Your task to perform on an android device: turn off smart reply in the gmail app Image 0: 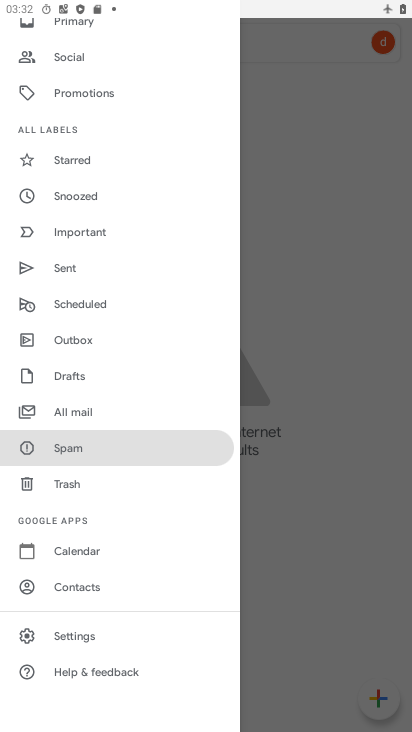
Step 0: press home button
Your task to perform on an android device: turn off smart reply in the gmail app Image 1: 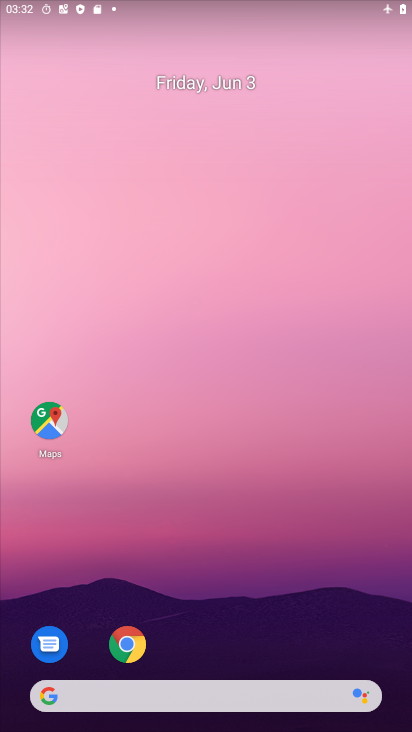
Step 1: drag from (205, 592) to (288, 170)
Your task to perform on an android device: turn off smart reply in the gmail app Image 2: 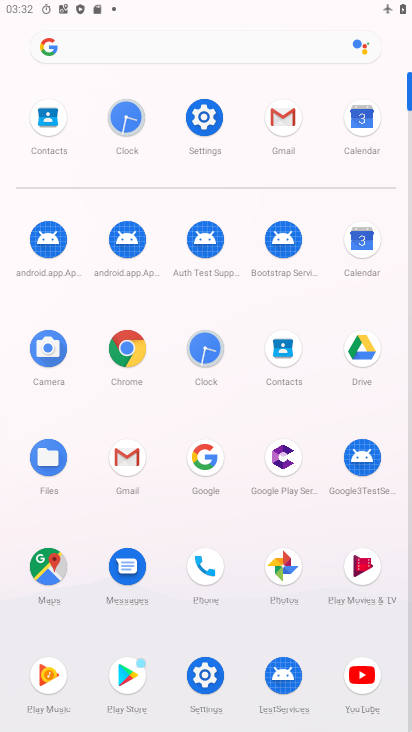
Step 2: click (288, 148)
Your task to perform on an android device: turn off smart reply in the gmail app Image 3: 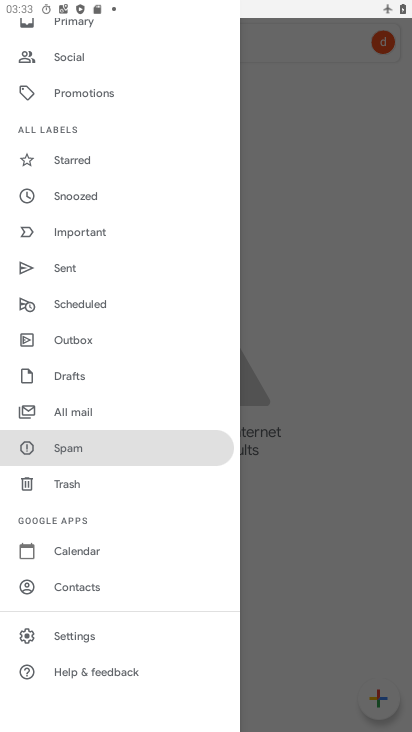
Step 3: click (108, 635)
Your task to perform on an android device: turn off smart reply in the gmail app Image 4: 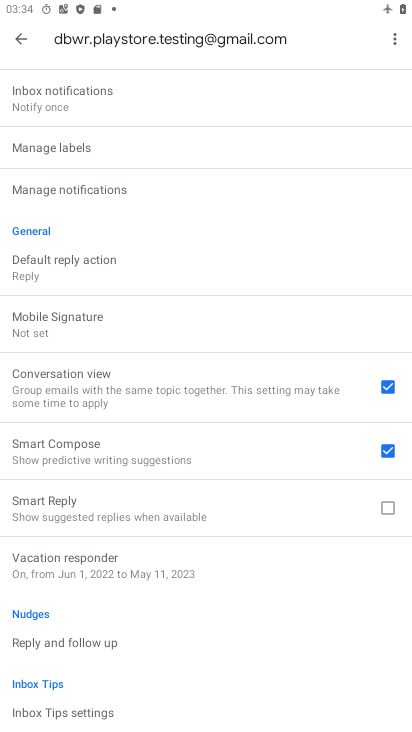
Step 4: task complete